Your task to perform on an android device: Open the map Image 0: 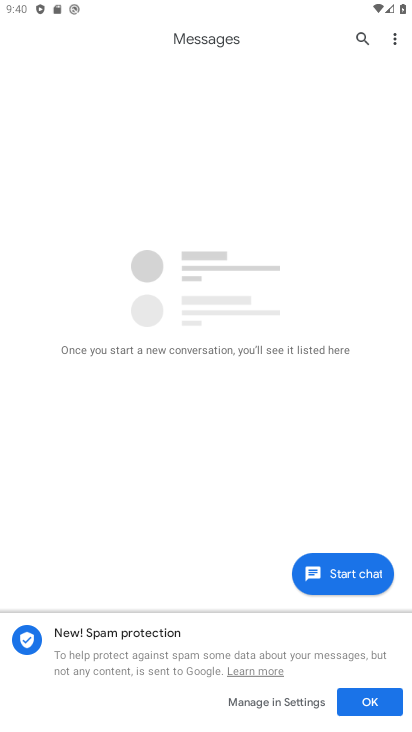
Step 0: press home button
Your task to perform on an android device: Open the map Image 1: 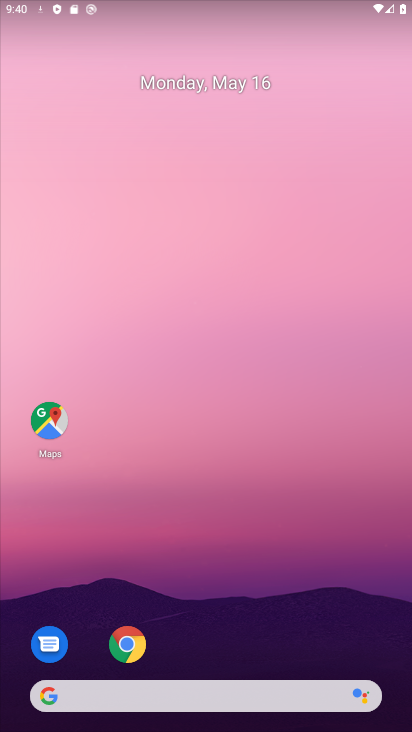
Step 1: click (51, 413)
Your task to perform on an android device: Open the map Image 2: 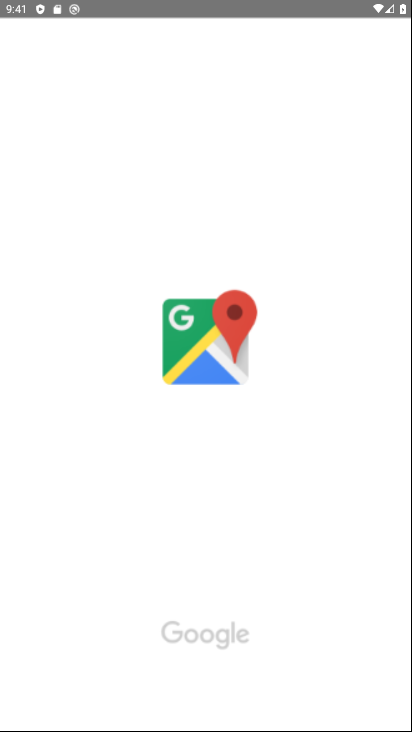
Step 2: press home button
Your task to perform on an android device: Open the map Image 3: 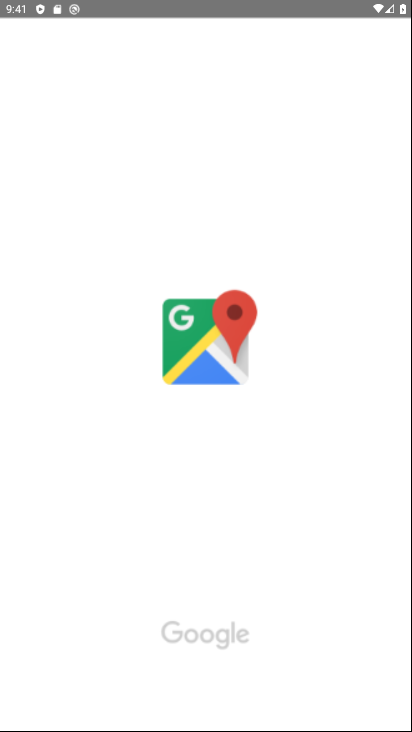
Step 3: press home button
Your task to perform on an android device: Open the map Image 4: 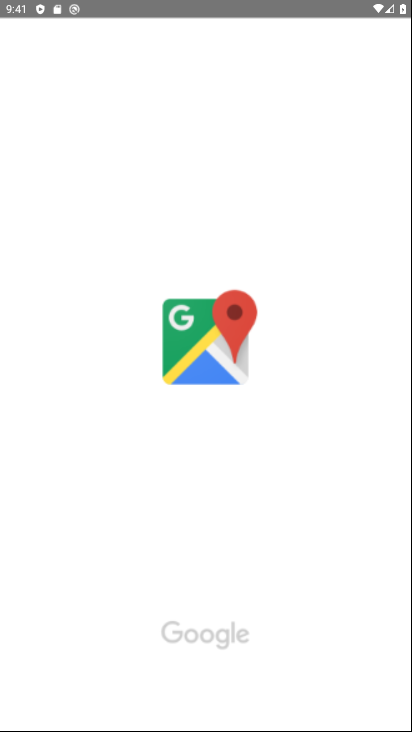
Step 4: press home button
Your task to perform on an android device: Open the map Image 5: 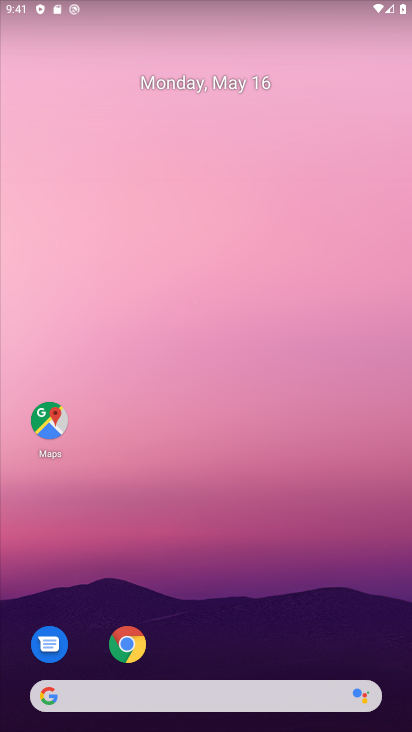
Step 5: click (50, 411)
Your task to perform on an android device: Open the map Image 6: 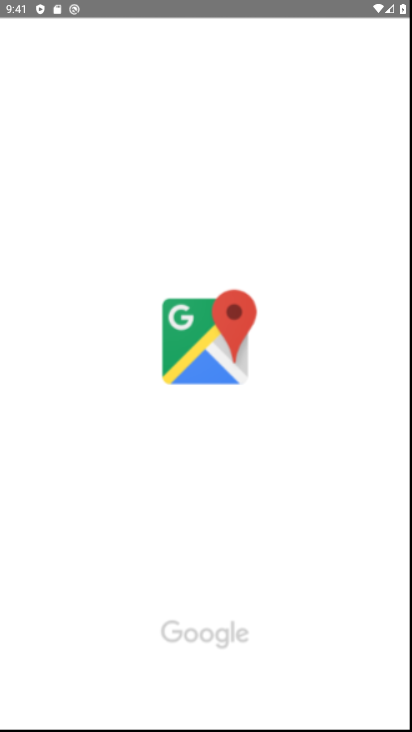
Step 6: task complete